Your task to perform on an android device: turn on sleep mode Image 0: 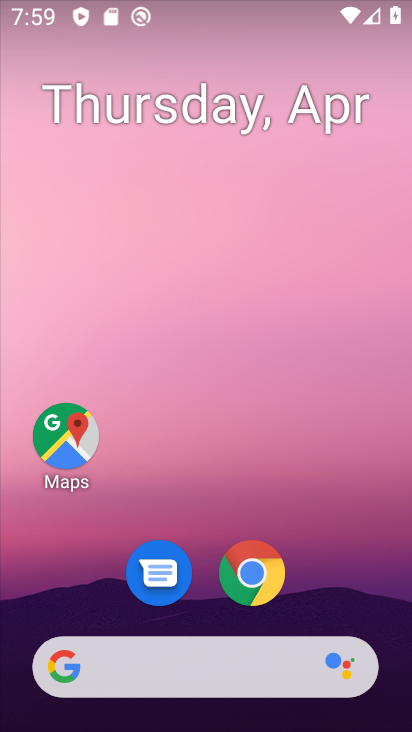
Step 0: drag from (214, 724) to (206, 174)
Your task to perform on an android device: turn on sleep mode Image 1: 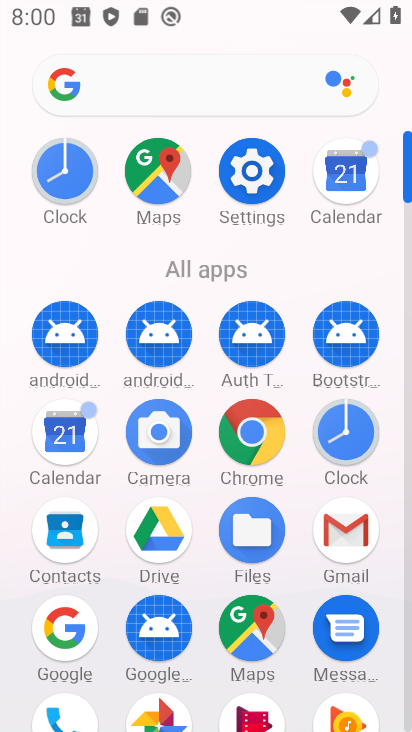
Step 1: click (261, 171)
Your task to perform on an android device: turn on sleep mode Image 2: 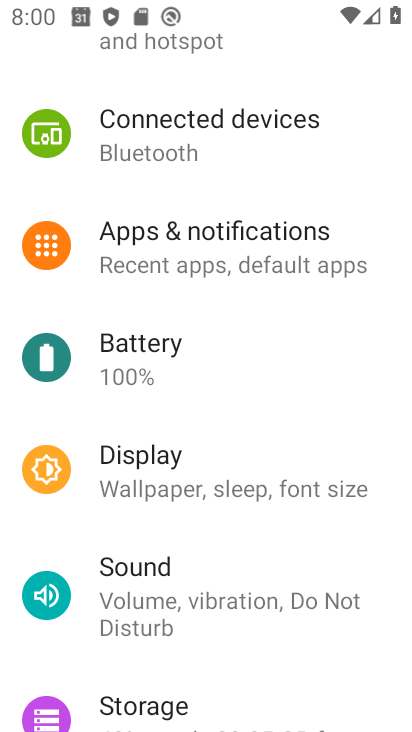
Step 2: drag from (167, 564) to (178, 282)
Your task to perform on an android device: turn on sleep mode Image 3: 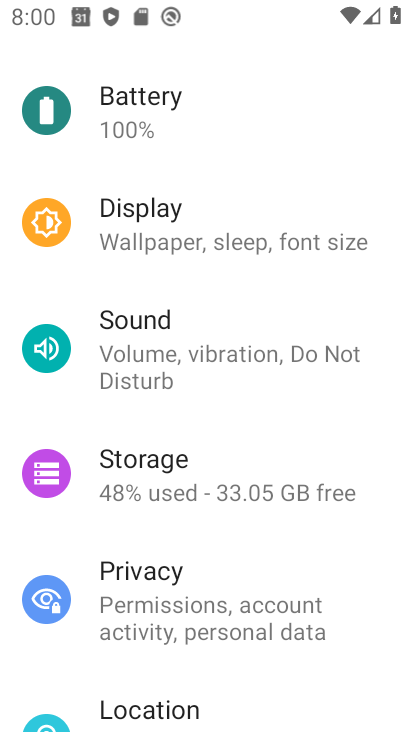
Step 3: click (182, 243)
Your task to perform on an android device: turn on sleep mode Image 4: 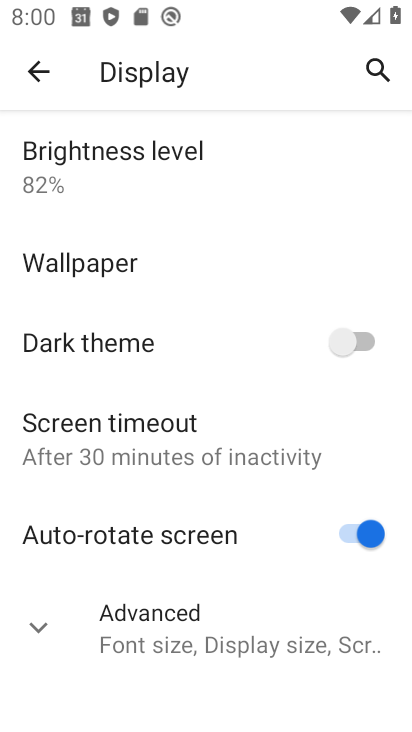
Step 4: task complete